Your task to perform on an android device: Search for seafood restaurants on Google Maps Image 0: 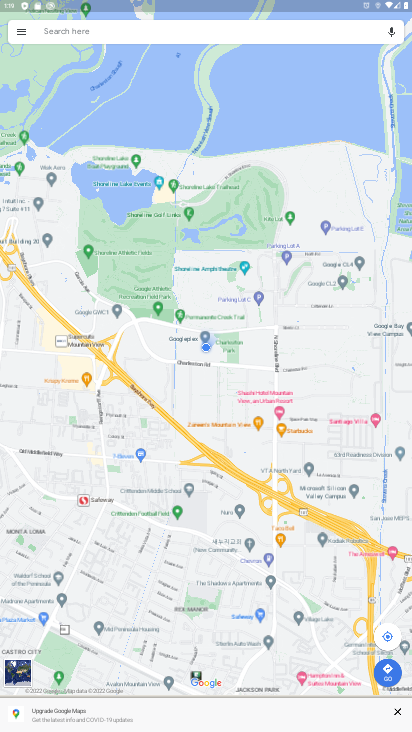
Step 0: click (128, 31)
Your task to perform on an android device: Search for seafood restaurants on Google Maps Image 1: 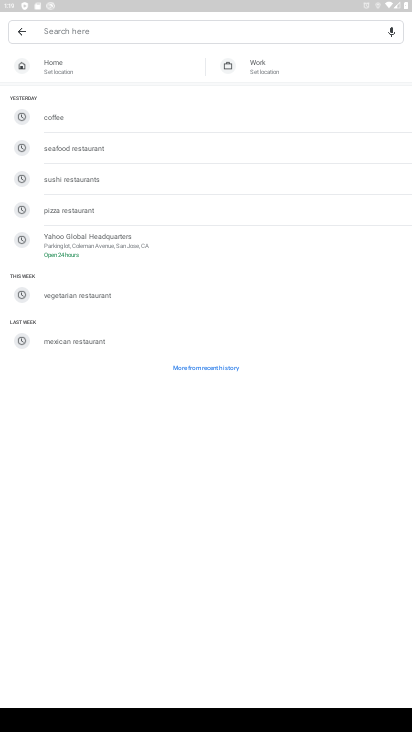
Step 1: click (105, 152)
Your task to perform on an android device: Search for seafood restaurants on Google Maps Image 2: 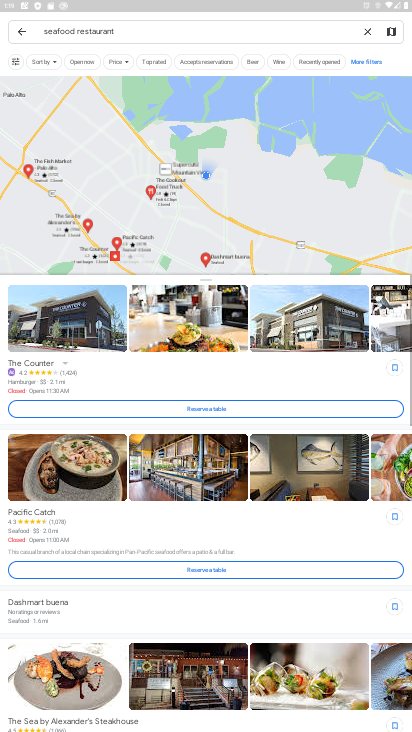
Step 2: task complete